Your task to perform on an android device: Open the calendar app, open the side menu, and click the "Day" option Image 0: 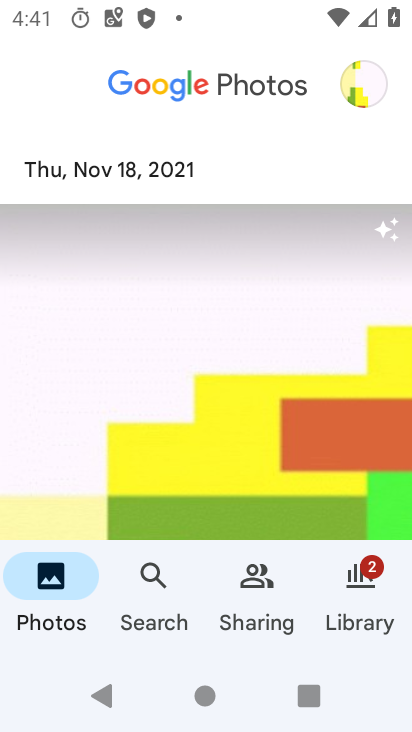
Step 0: press home button
Your task to perform on an android device: Open the calendar app, open the side menu, and click the "Day" option Image 1: 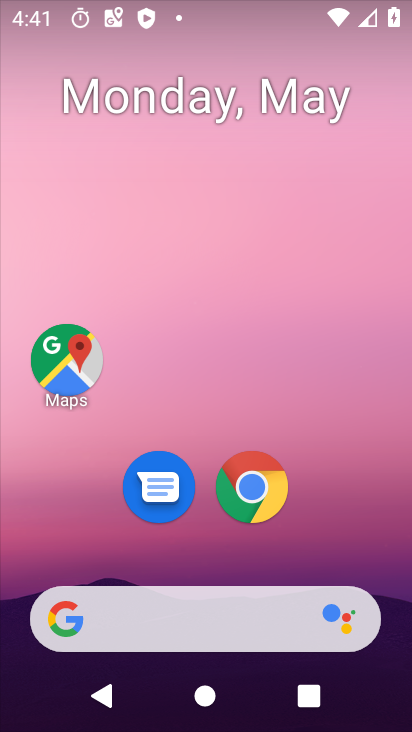
Step 1: drag from (171, 560) to (169, 230)
Your task to perform on an android device: Open the calendar app, open the side menu, and click the "Day" option Image 2: 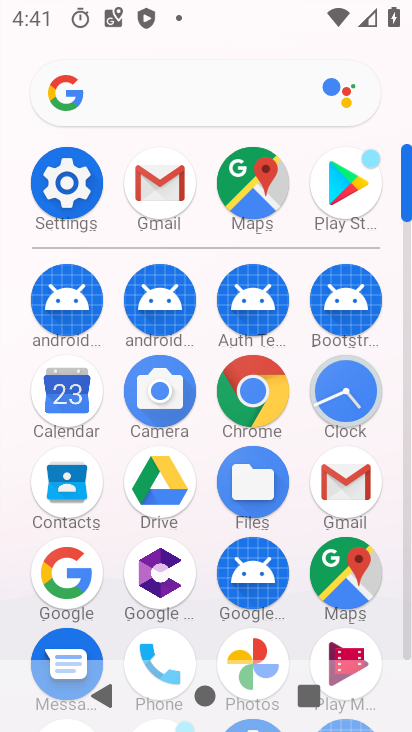
Step 2: click (75, 403)
Your task to perform on an android device: Open the calendar app, open the side menu, and click the "Day" option Image 3: 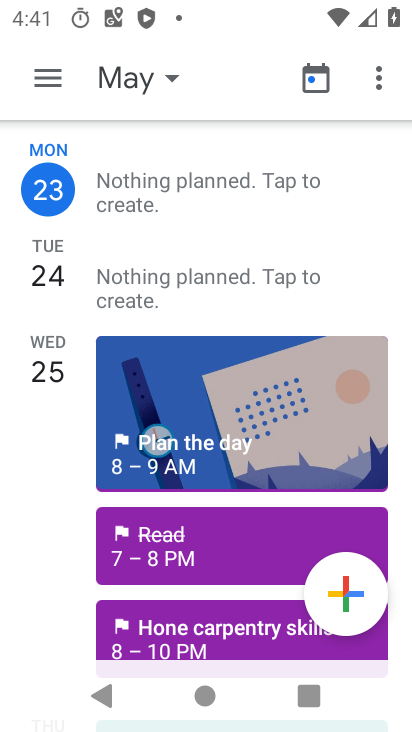
Step 3: click (38, 78)
Your task to perform on an android device: Open the calendar app, open the side menu, and click the "Day" option Image 4: 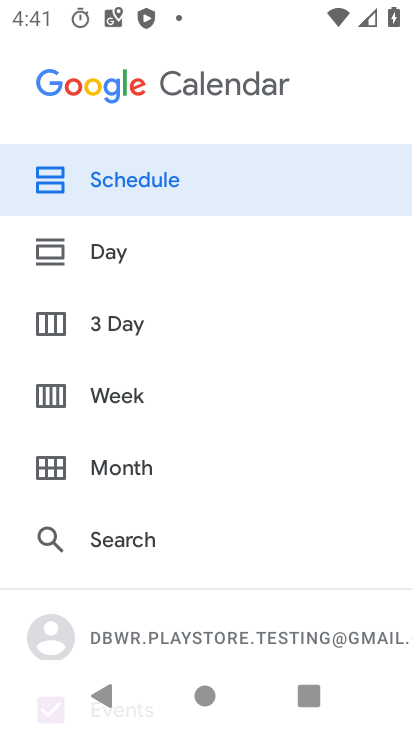
Step 4: click (125, 265)
Your task to perform on an android device: Open the calendar app, open the side menu, and click the "Day" option Image 5: 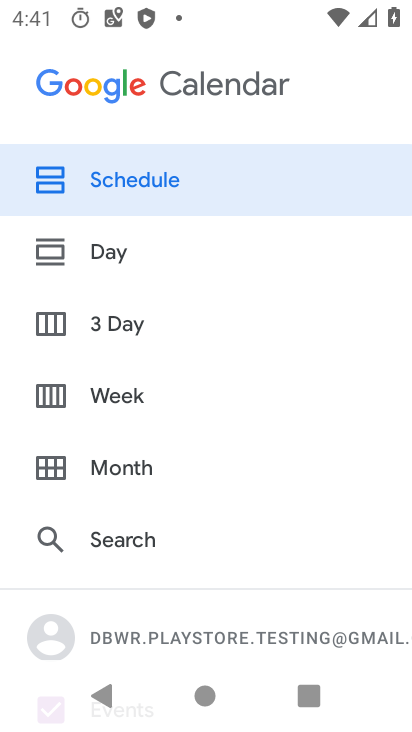
Step 5: click (123, 248)
Your task to perform on an android device: Open the calendar app, open the side menu, and click the "Day" option Image 6: 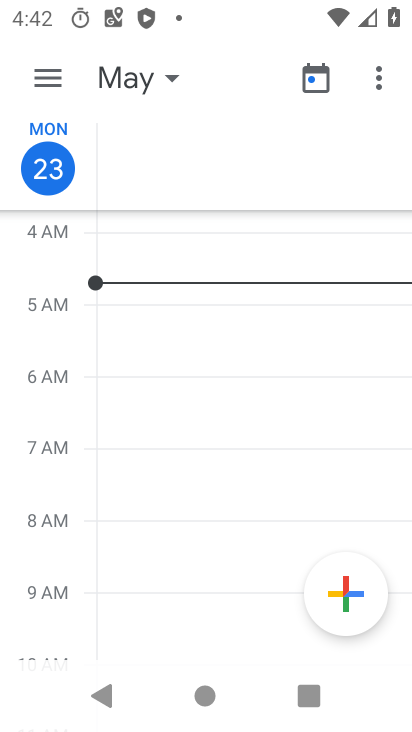
Step 6: click (63, 70)
Your task to perform on an android device: Open the calendar app, open the side menu, and click the "Day" option Image 7: 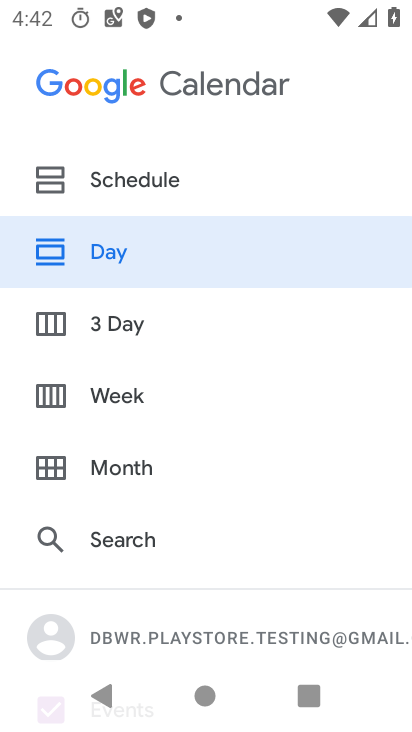
Step 7: task complete